Your task to perform on an android device: see sites visited before in the chrome app Image 0: 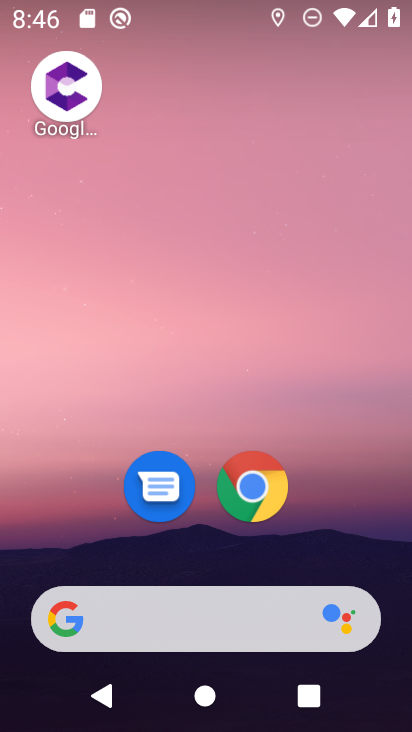
Step 0: click (257, 496)
Your task to perform on an android device: see sites visited before in the chrome app Image 1: 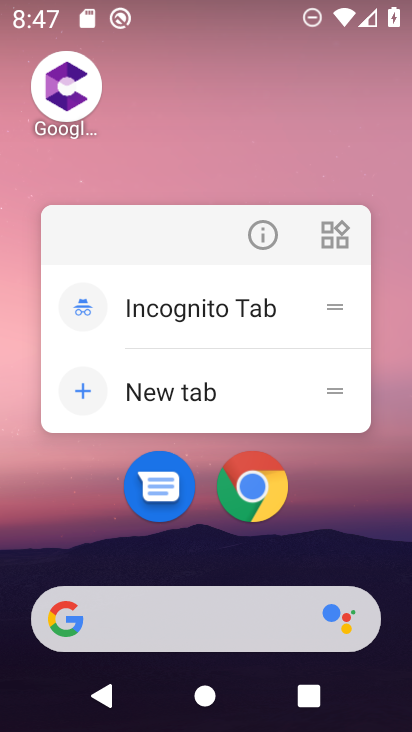
Step 1: click (265, 491)
Your task to perform on an android device: see sites visited before in the chrome app Image 2: 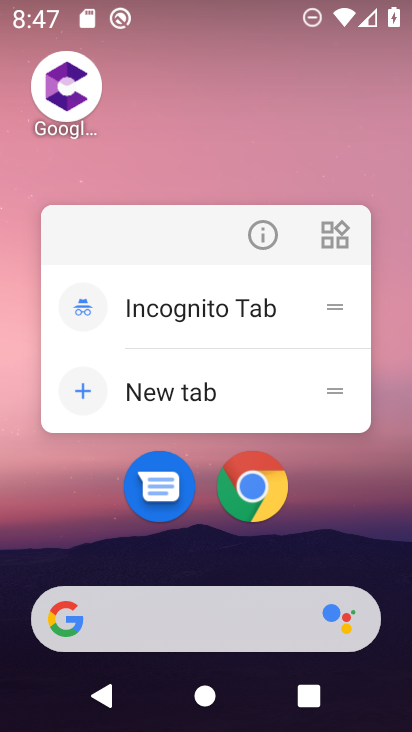
Step 2: click (264, 480)
Your task to perform on an android device: see sites visited before in the chrome app Image 3: 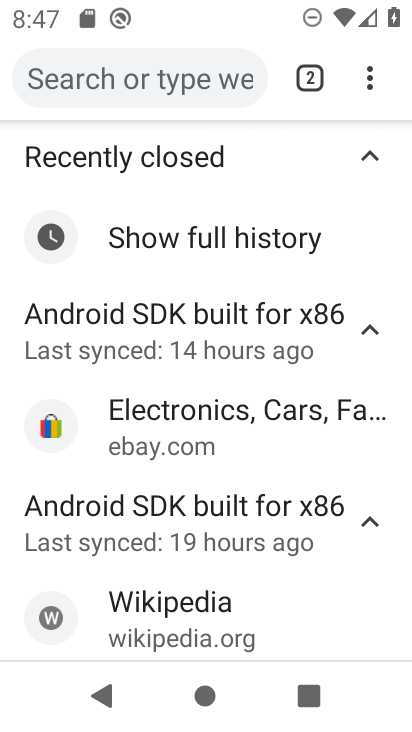
Step 3: task complete